Your task to perform on an android device: Toggle the flashlight Image 0: 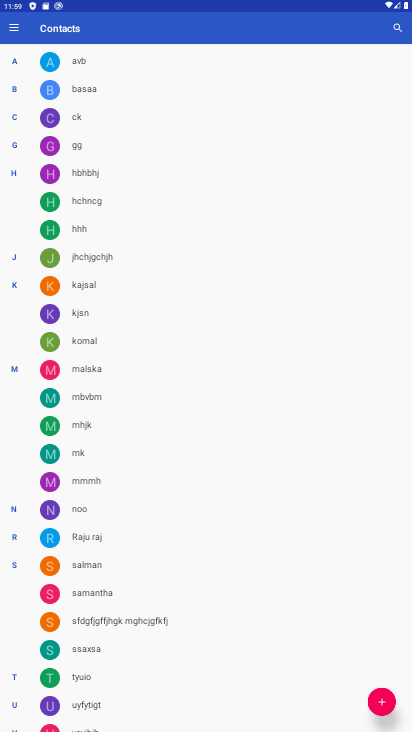
Step 0: task impossible